Your task to perform on an android device: uninstall "Pluto TV - Live TV and Movies" Image 0: 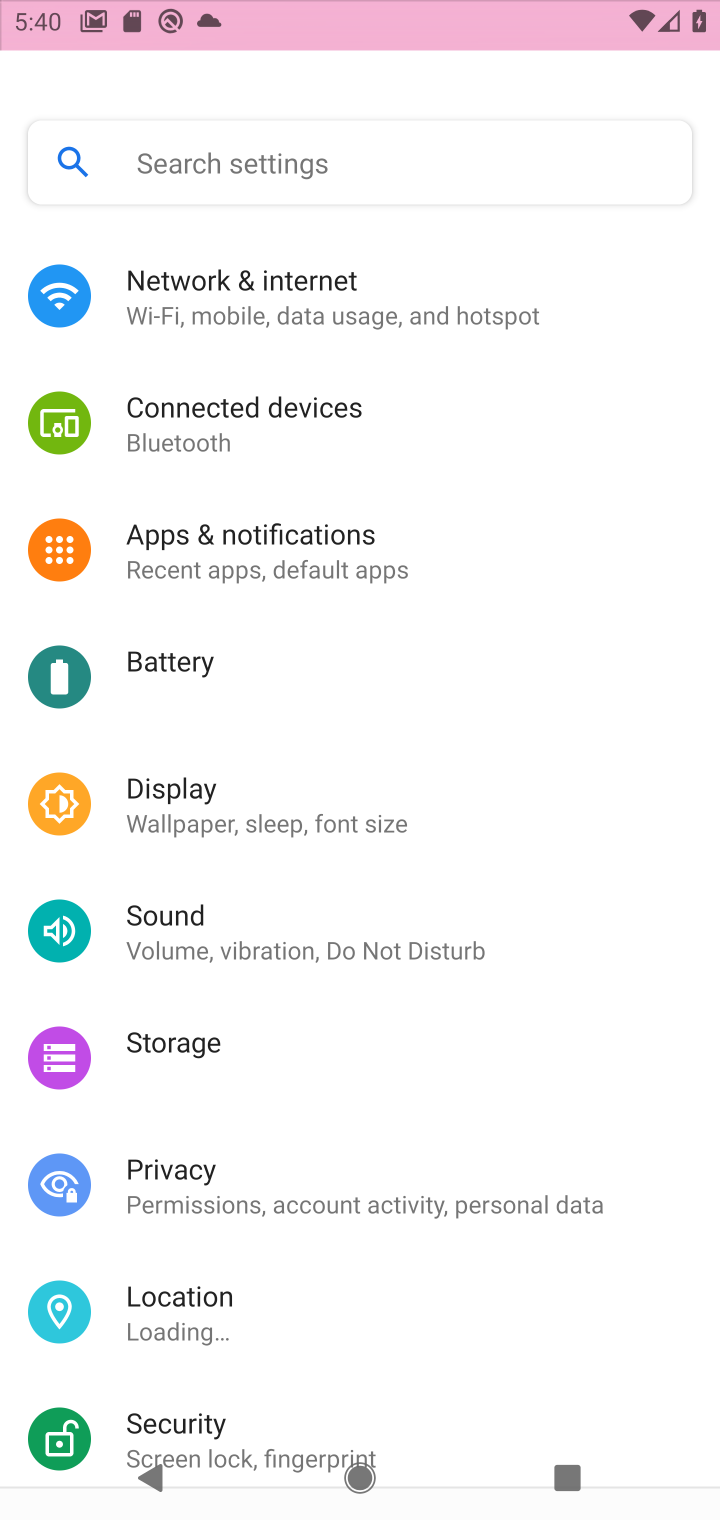
Step 0: click (421, 322)
Your task to perform on an android device: uninstall "Pluto TV - Live TV and Movies" Image 1: 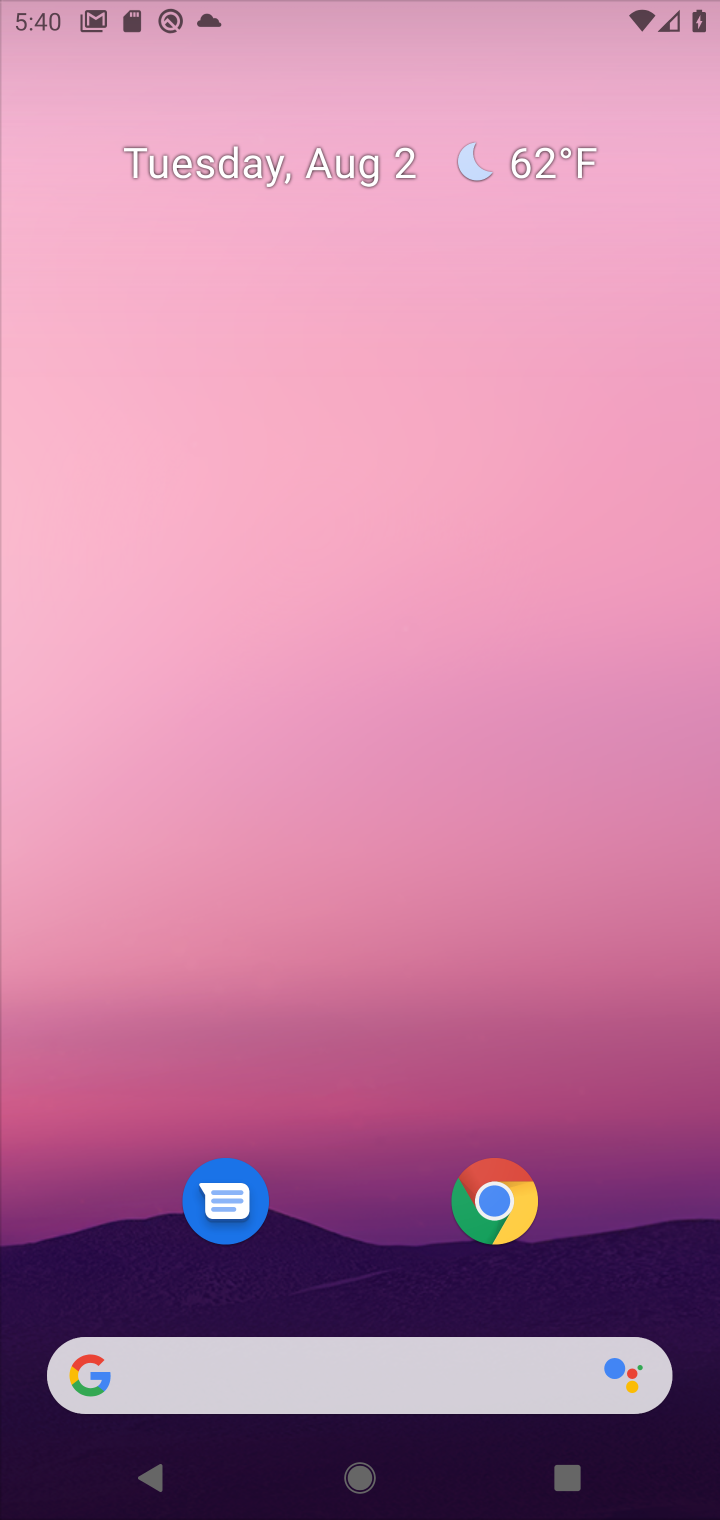
Step 1: drag from (401, 243) to (552, 1517)
Your task to perform on an android device: uninstall "Pluto TV - Live TV and Movies" Image 2: 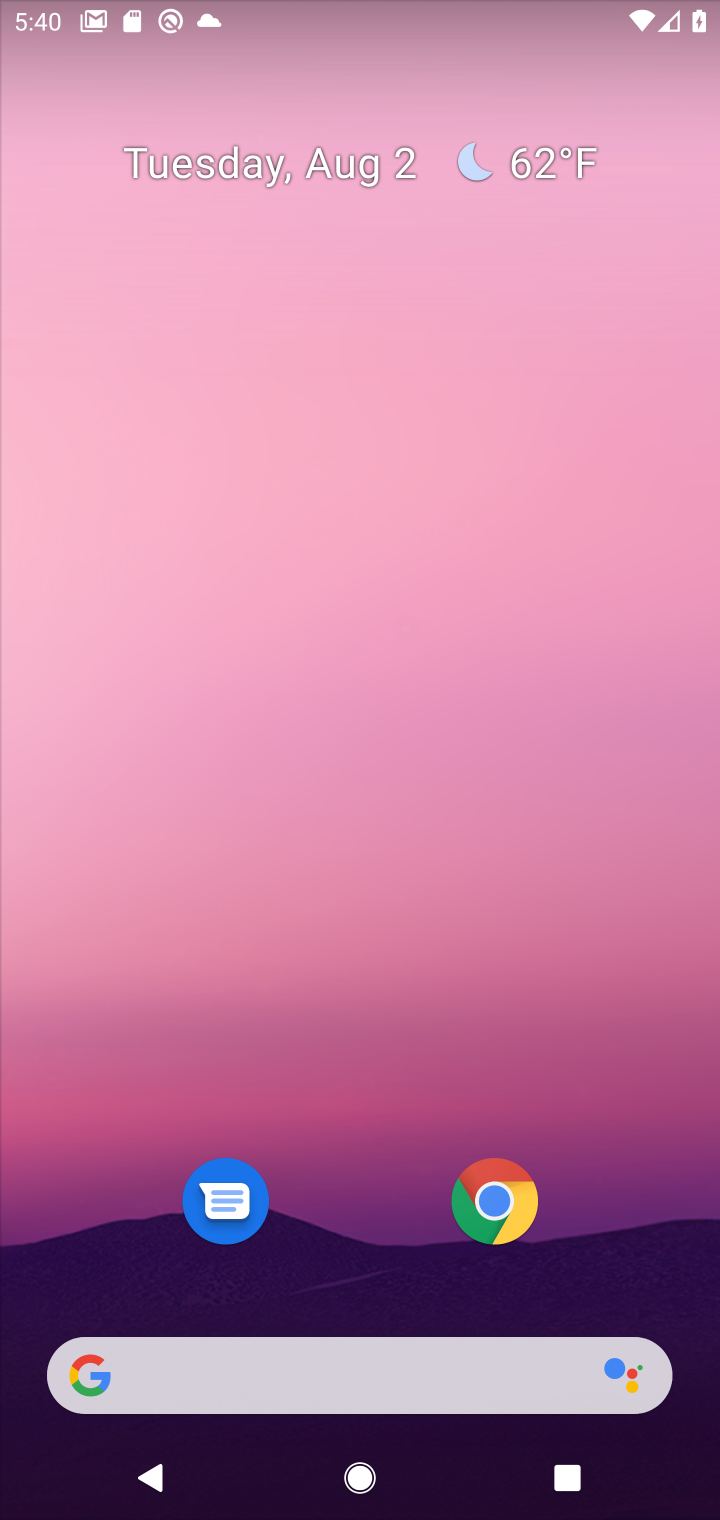
Step 2: drag from (356, 1324) to (360, 365)
Your task to perform on an android device: uninstall "Pluto TV - Live TV and Movies" Image 3: 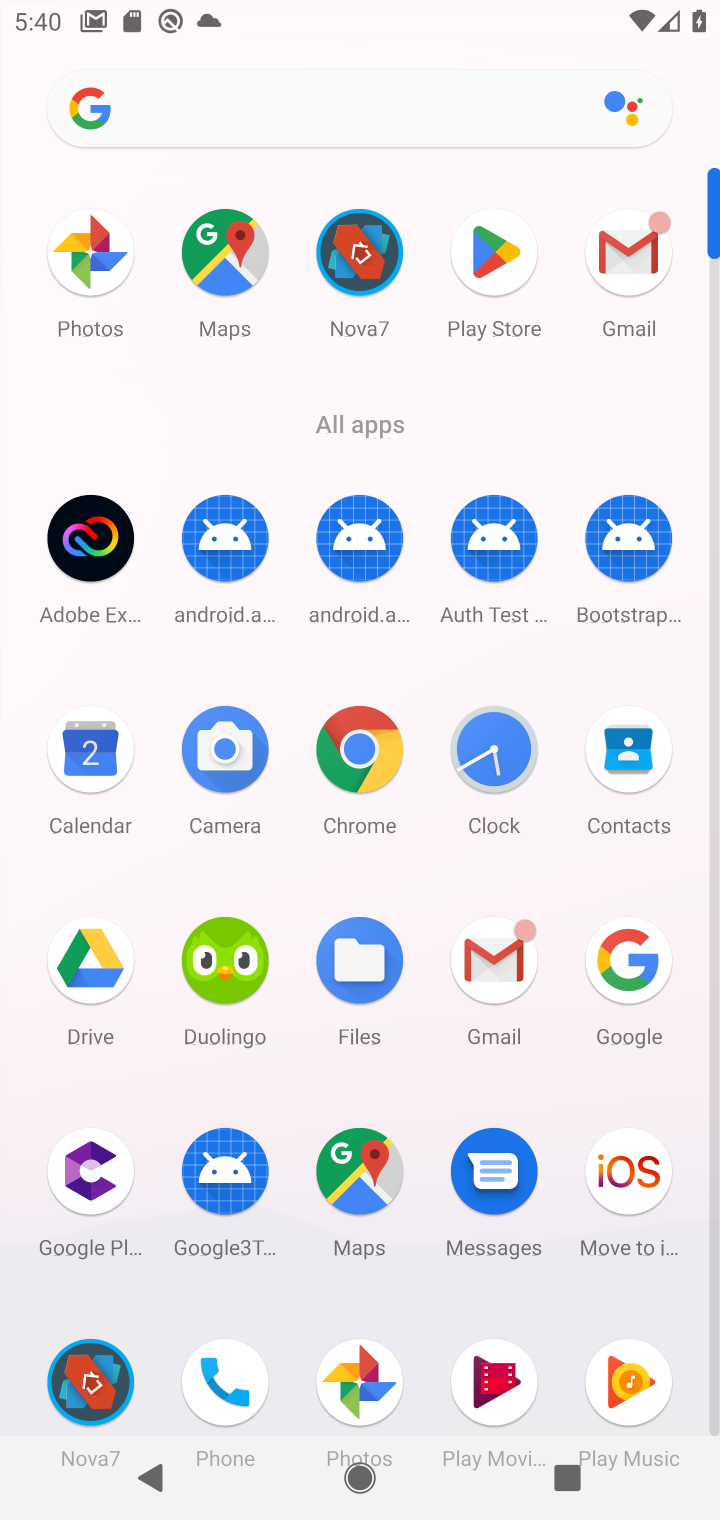
Step 3: click (510, 248)
Your task to perform on an android device: uninstall "Pluto TV - Live TV and Movies" Image 4: 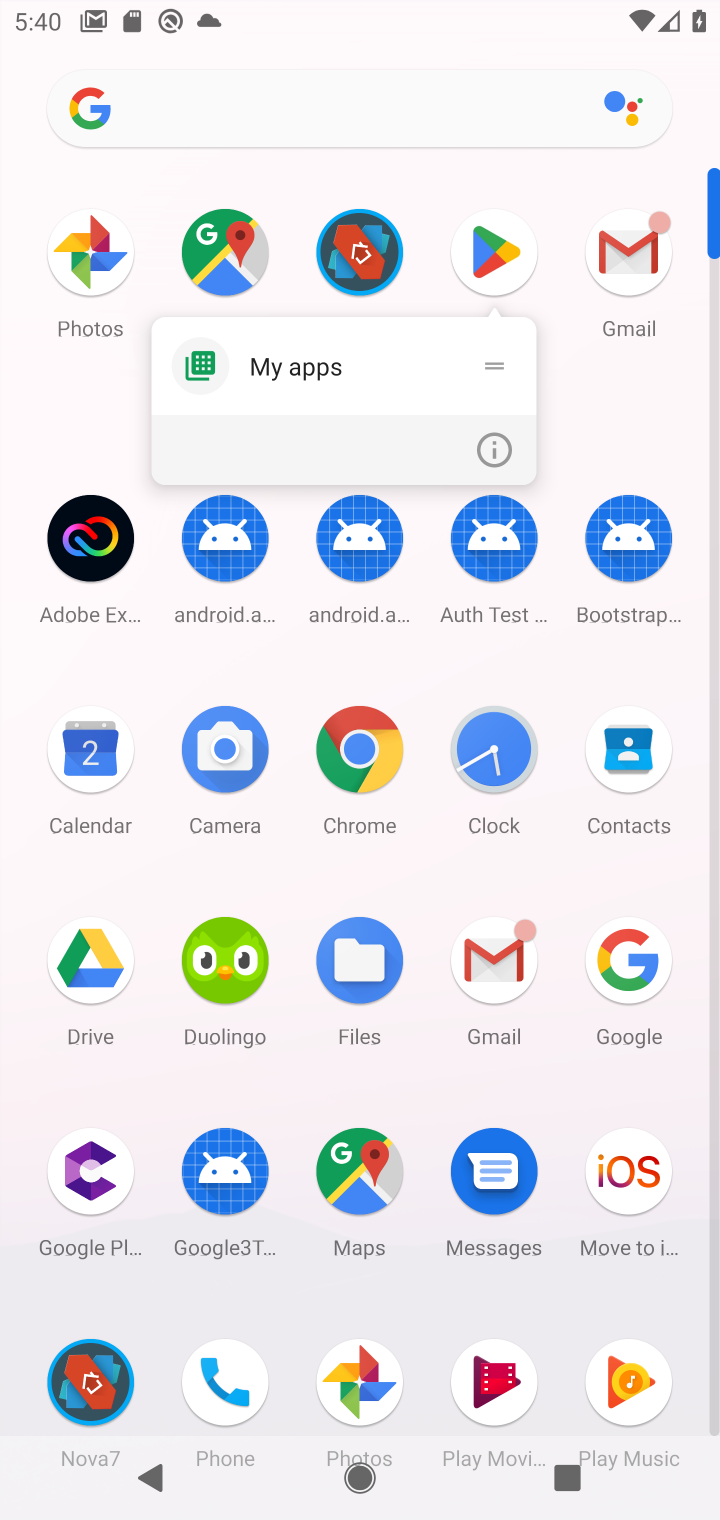
Step 4: click (498, 426)
Your task to perform on an android device: uninstall "Pluto TV - Live TV and Movies" Image 5: 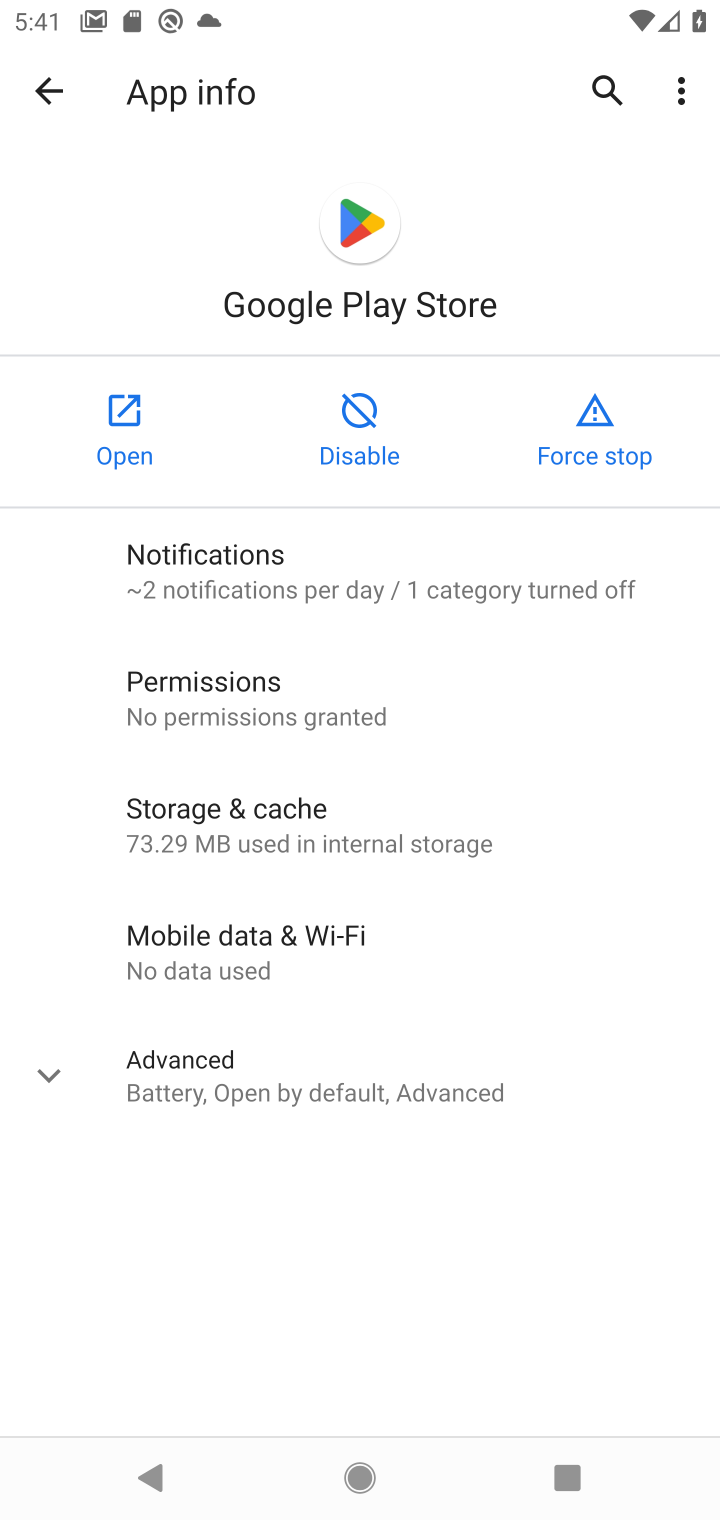
Step 5: click (128, 426)
Your task to perform on an android device: uninstall "Pluto TV - Live TV and Movies" Image 6: 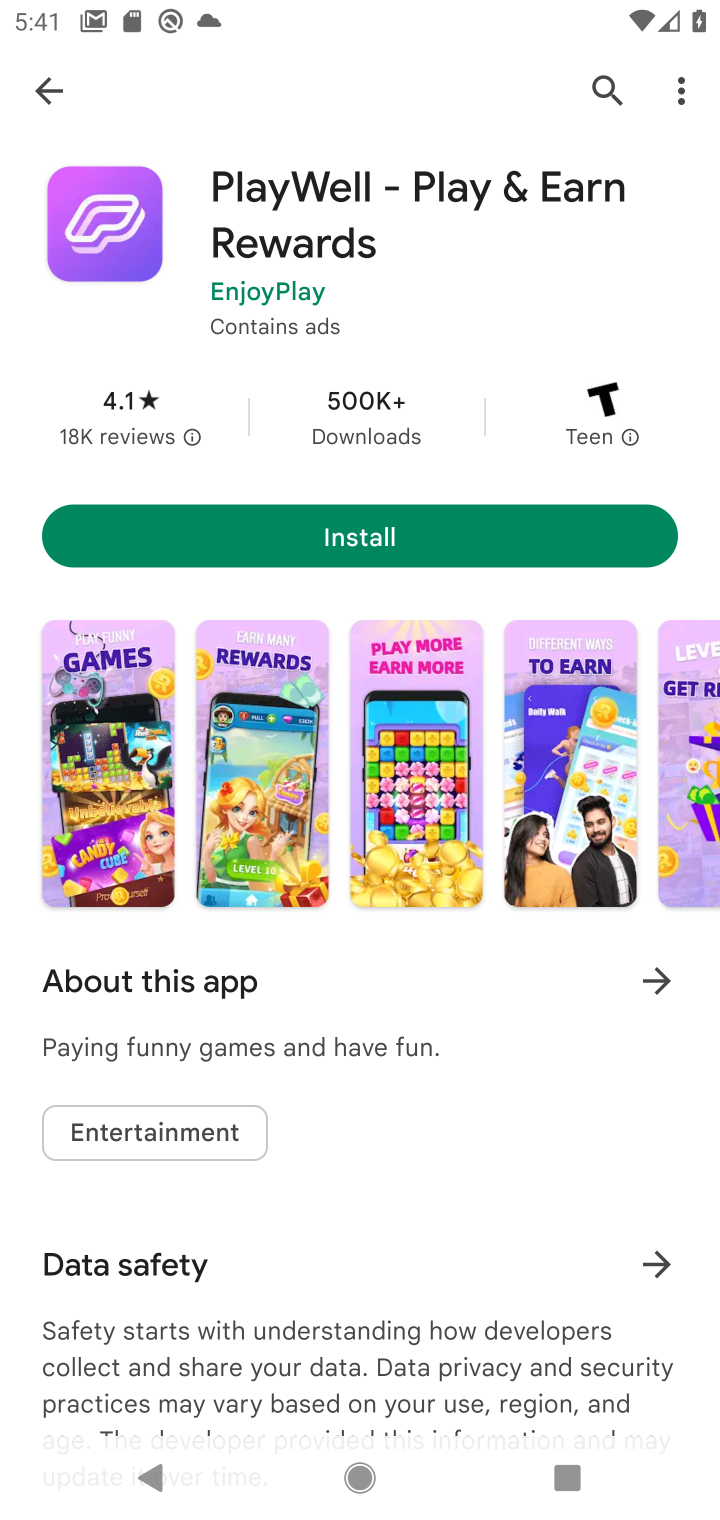
Step 6: click (593, 100)
Your task to perform on an android device: uninstall "Pluto TV - Live TV and Movies" Image 7: 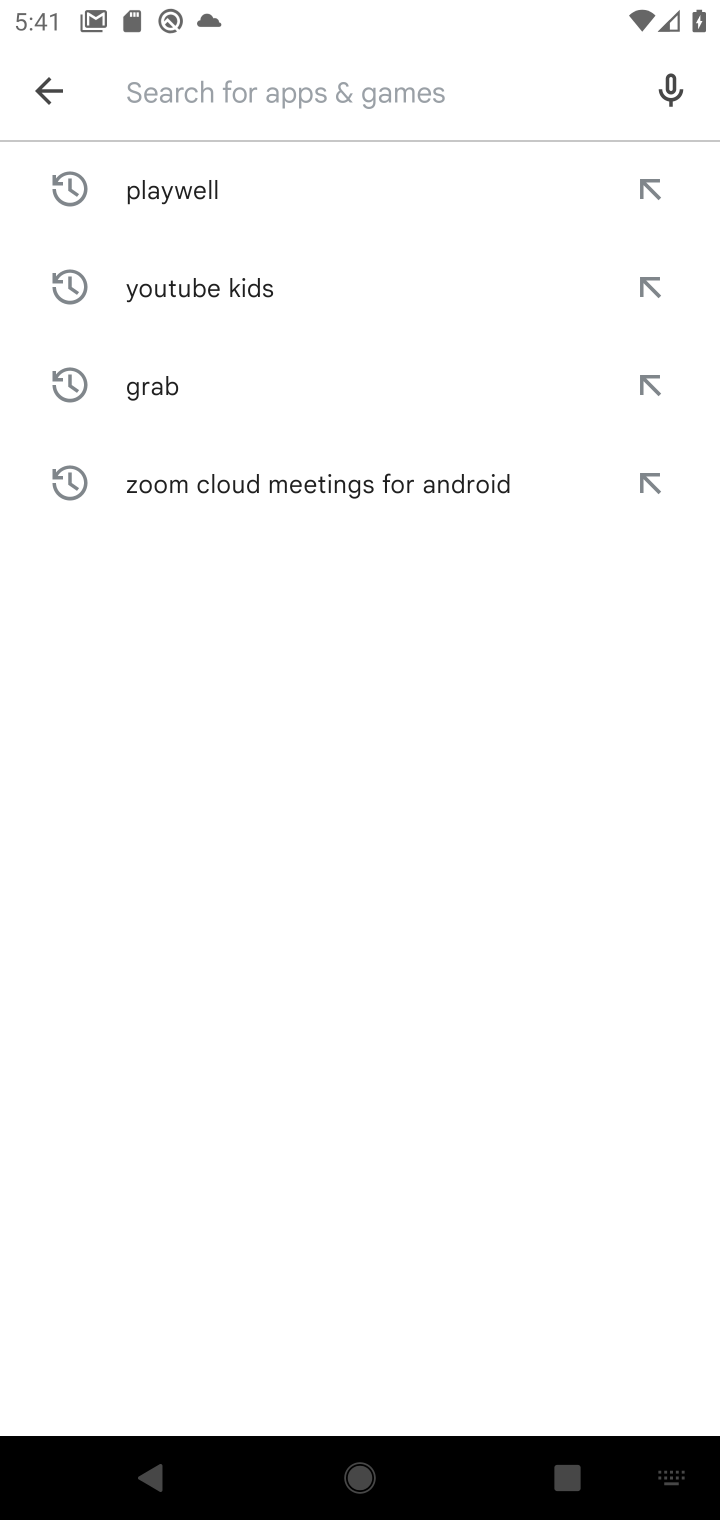
Step 7: click (341, 67)
Your task to perform on an android device: uninstall "Pluto TV - Live TV and Movies" Image 8: 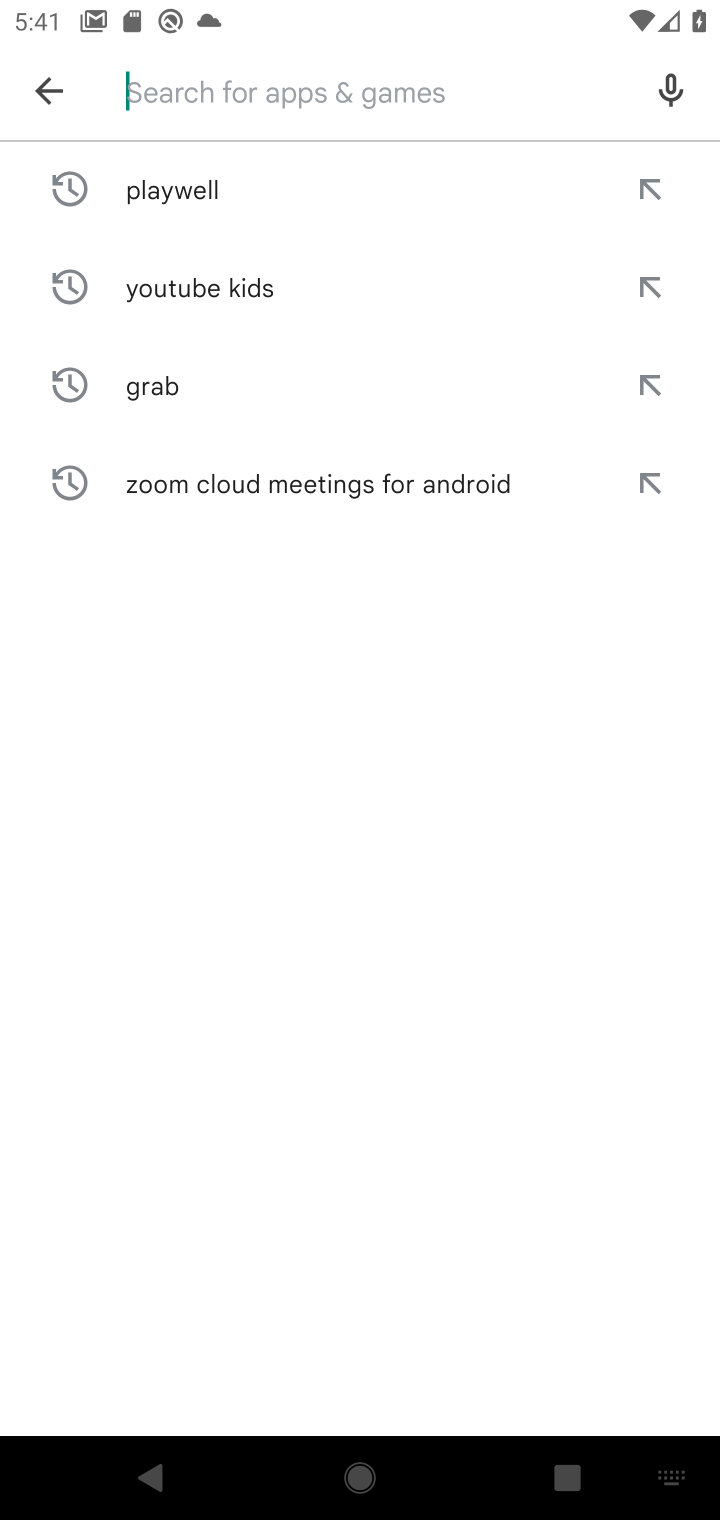
Step 8: type "Pluto TV - Live TV and Movies"
Your task to perform on an android device: uninstall "Pluto TV - Live TV and Movies" Image 9: 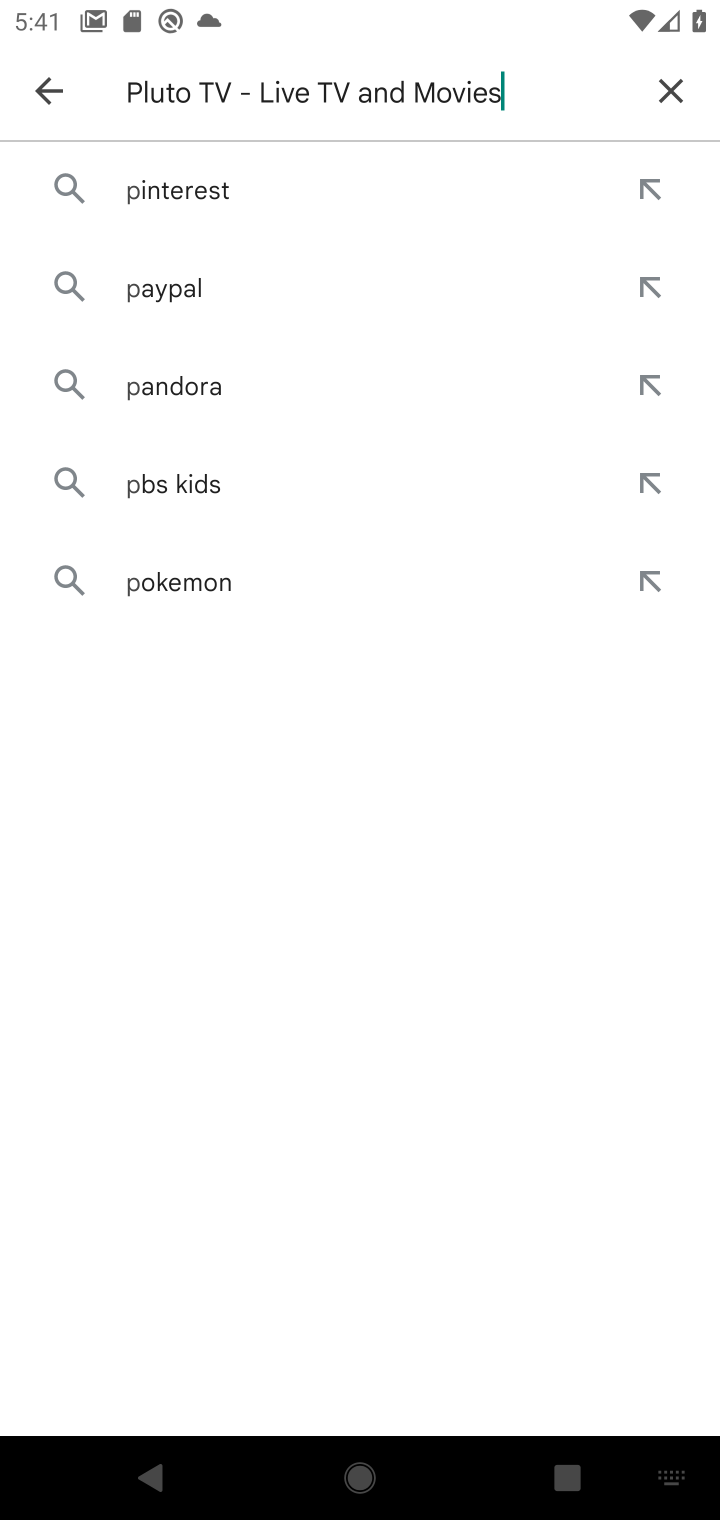
Step 9: click (334, 89)
Your task to perform on an android device: uninstall "Pluto TV - Live TV and Movies" Image 10: 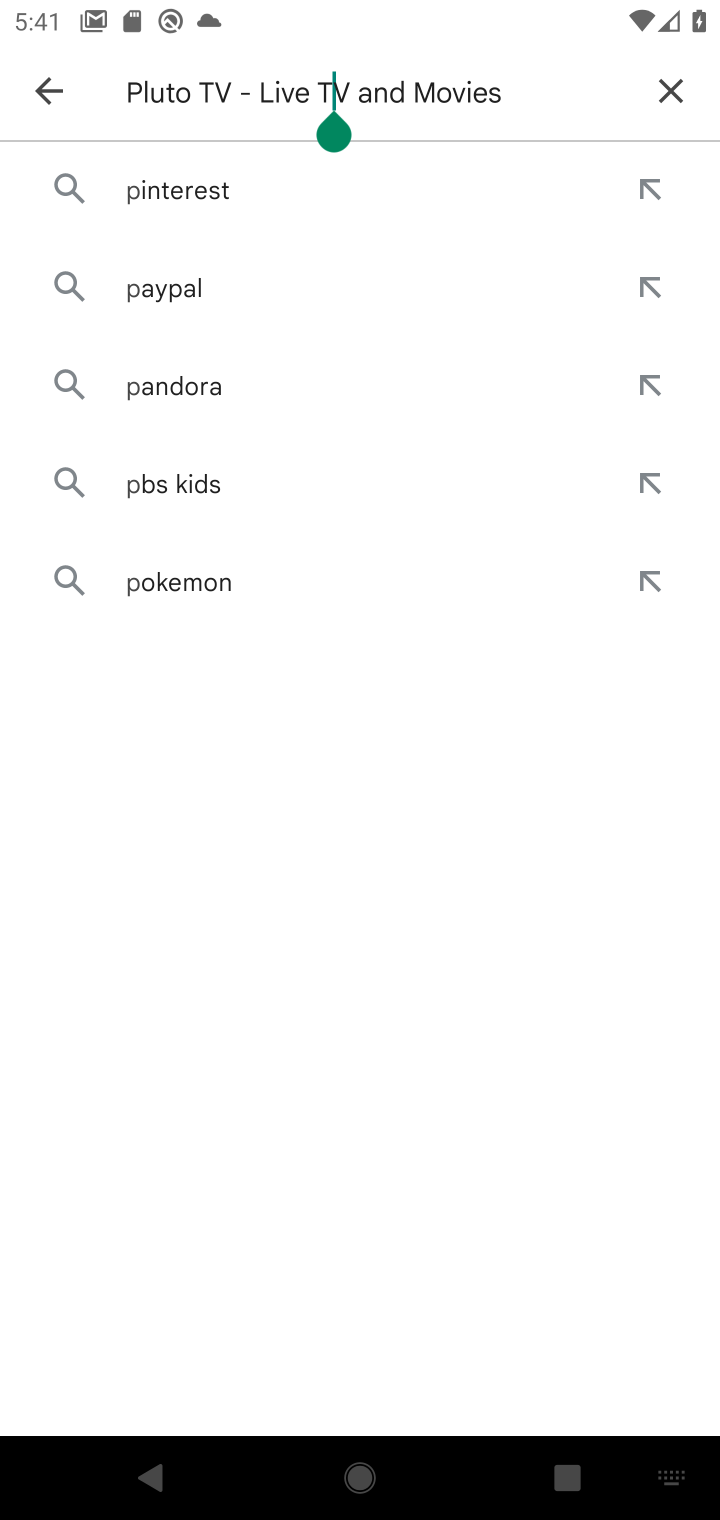
Step 10: click (572, 110)
Your task to perform on an android device: uninstall "Pluto TV - Live TV and Movies" Image 11: 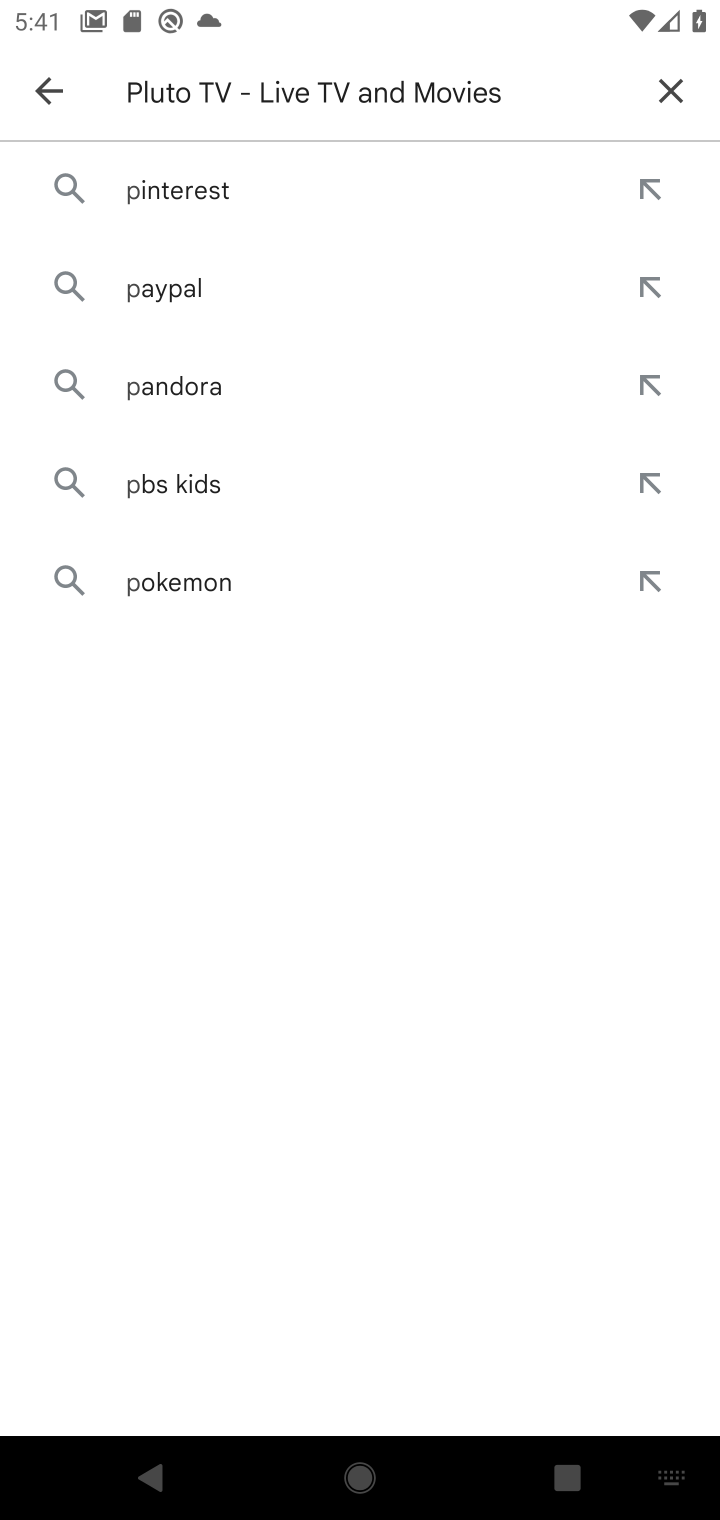
Step 11: drag from (552, 98) to (393, 78)
Your task to perform on an android device: uninstall "Pluto TV - Live TV and Movies" Image 12: 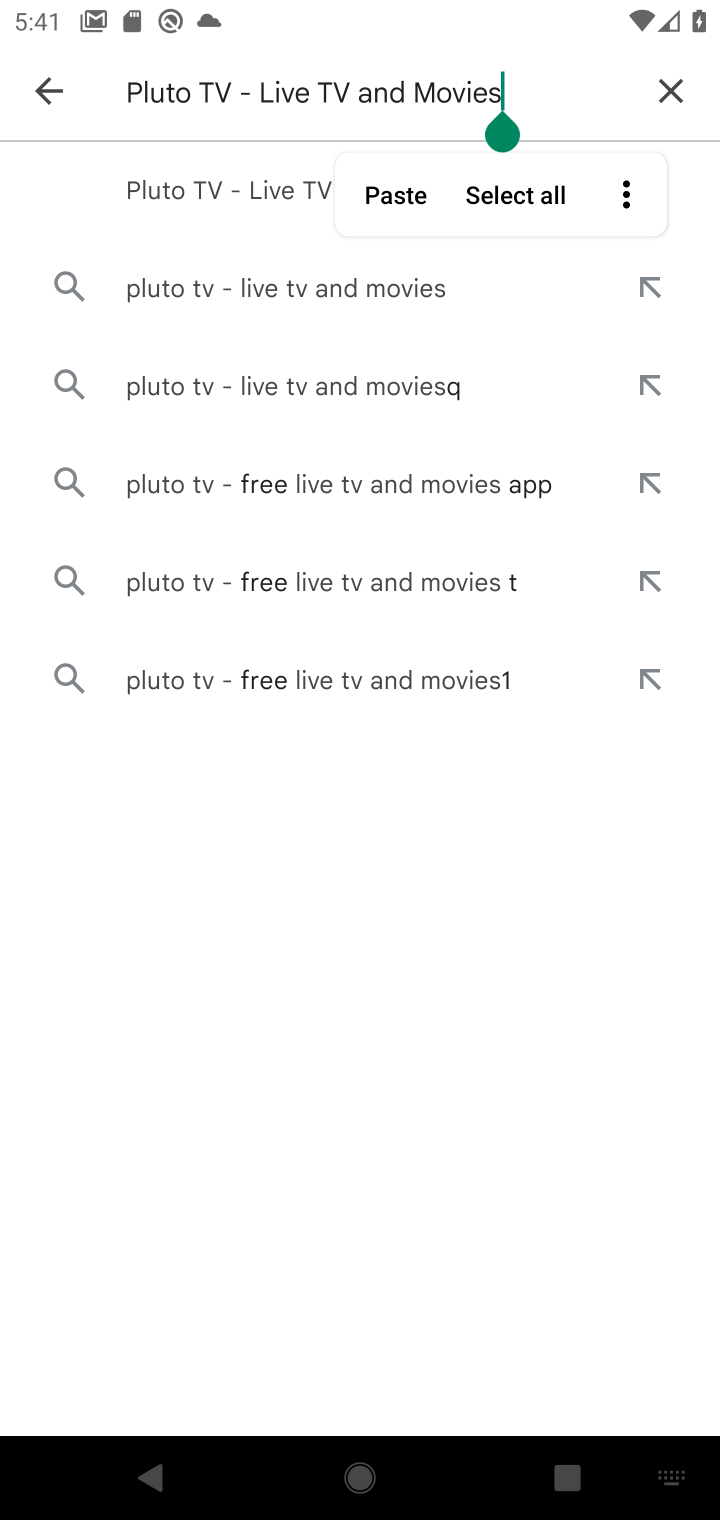
Step 12: drag from (252, 80) to (340, 118)
Your task to perform on an android device: uninstall "Pluto TV - Live TV and Movies" Image 13: 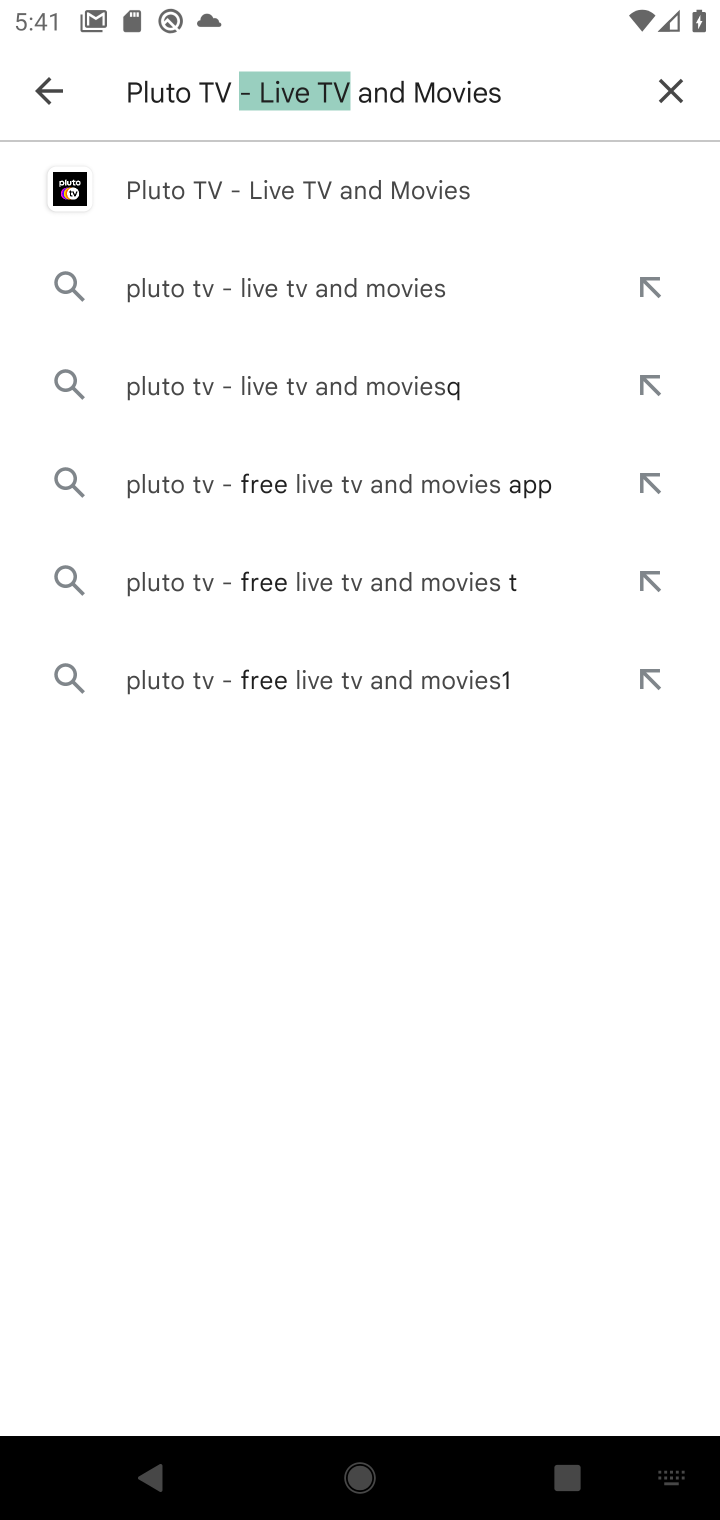
Step 13: click (208, 179)
Your task to perform on an android device: uninstall "Pluto TV - Live TV and Movies" Image 14: 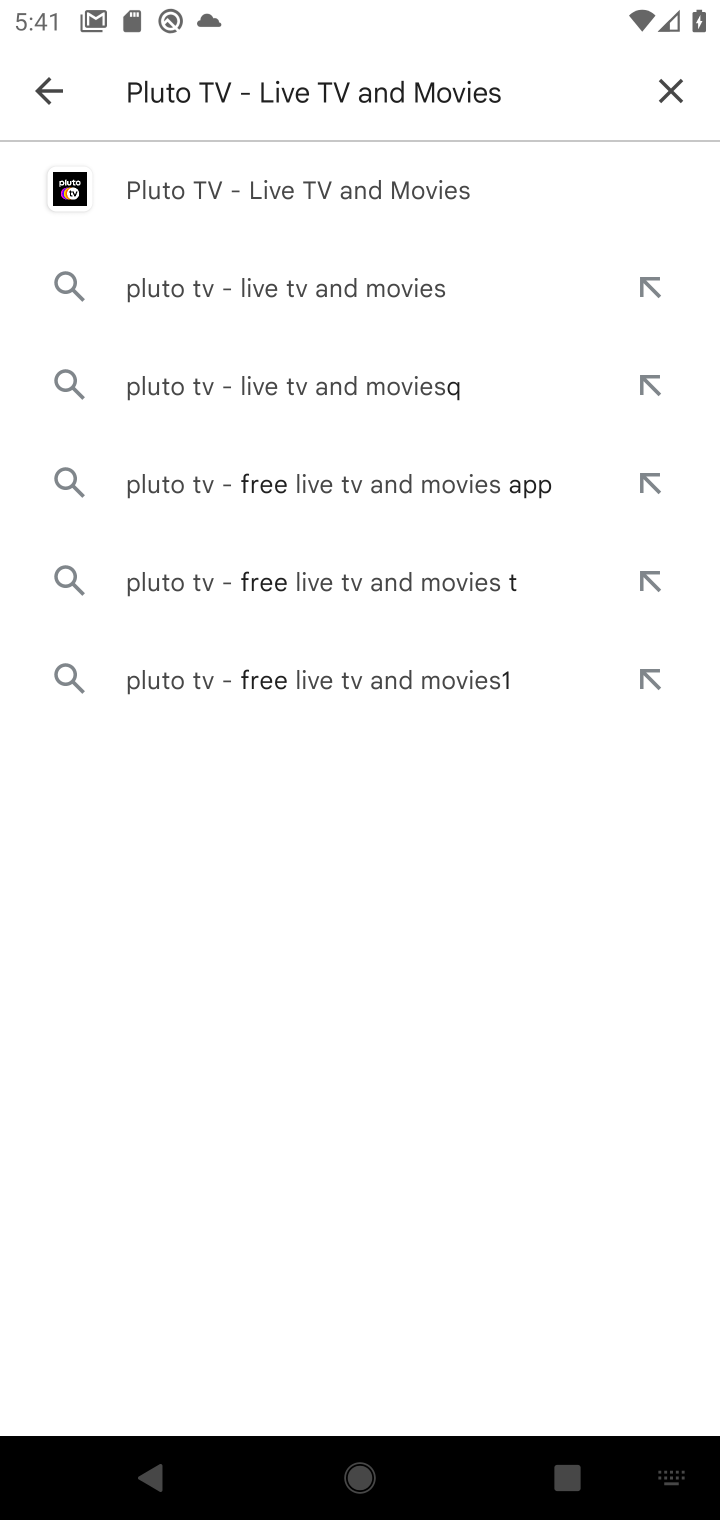
Step 14: click (163, 188)
Your task to perform on an android device: uninstall "Pluto TV - Live TV and Movies" Image 15: 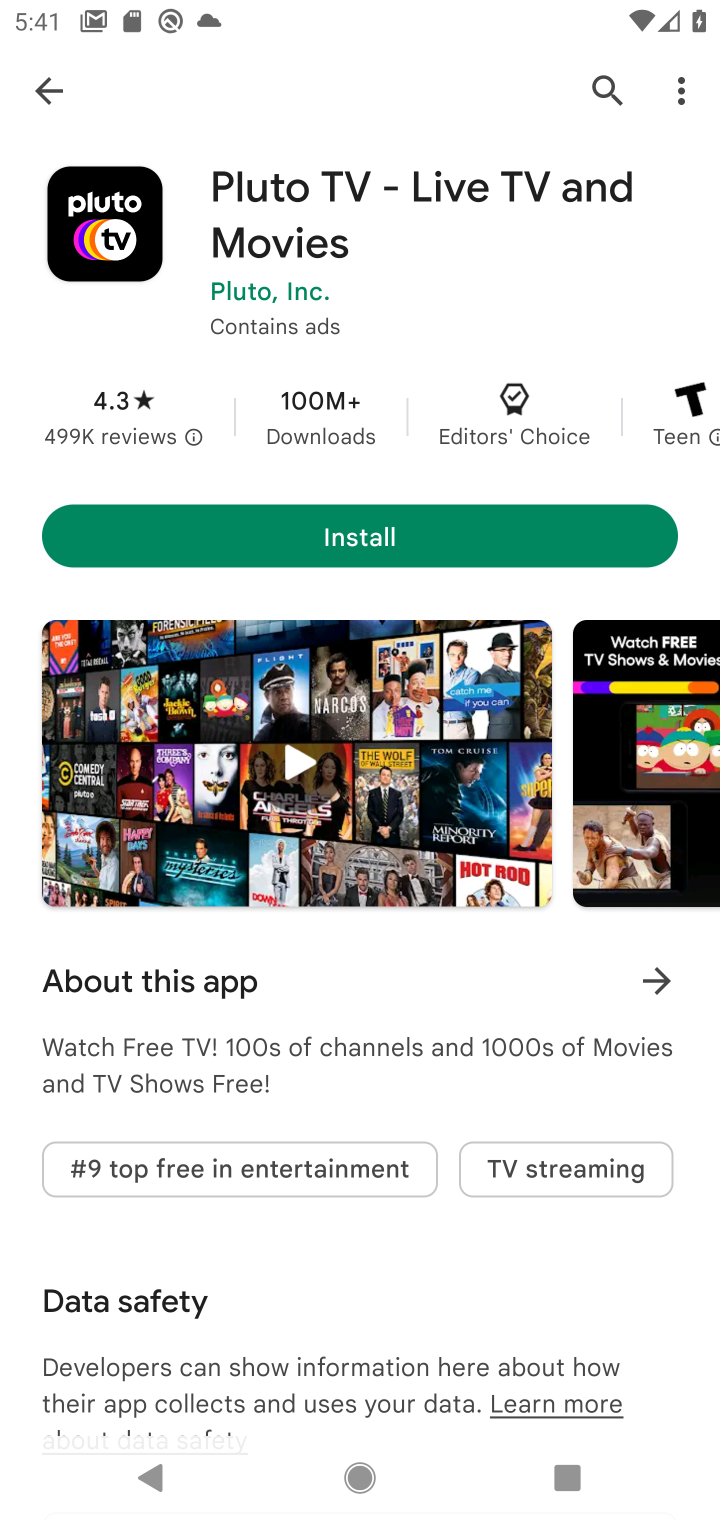
Step 15: task complete